Your task to perform on an android device: Look up "custom art" on Etsy Image 0: 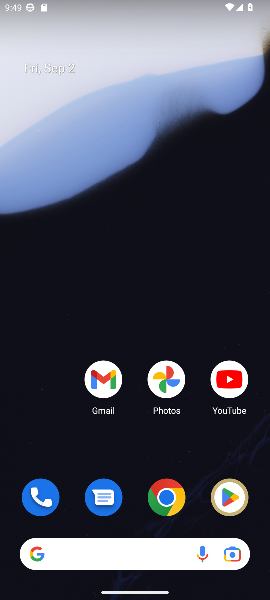
Step 0: drag from (127, 516) to (127, 130)
Your task to perform on an android device: Look up "custom art" on Etsy Image 1: 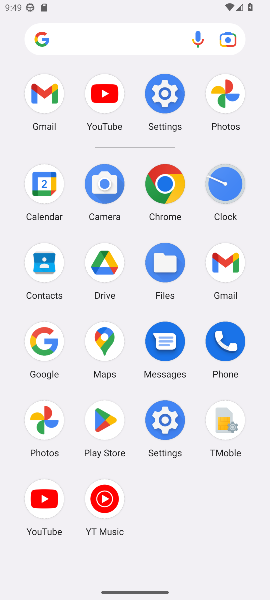
Step 1: click (43, 345)
Your task to perform on an android device: Look up "custom art" on Etsy Image 2: 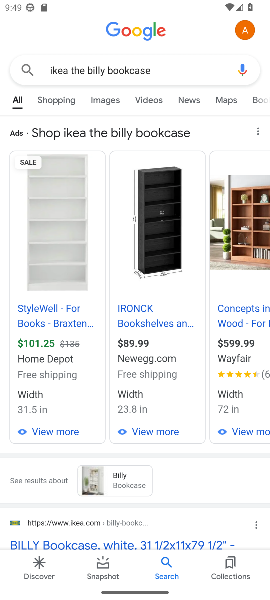
Step 2: click (154, 75)
Your task to perform on an android device: Look up "custom art" on Etsy Image 3: 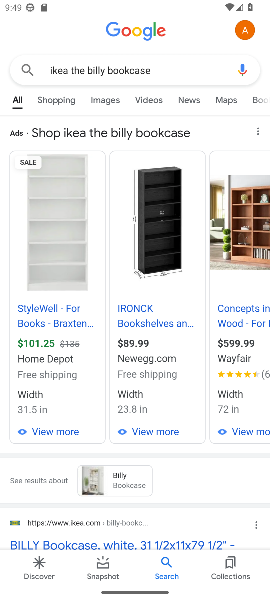
Step 3: click (170, 71)
Your task to perform on an android device: Look up "custom art" on Etsy Image 4: 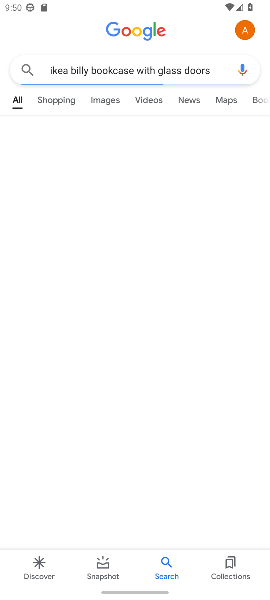
Step 4: click (197, 73)
Your task to perform on an android device: Look up "custom art" on Etsy Image 5: 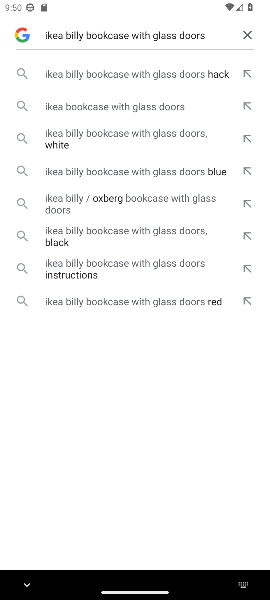
Step 5: click (245, 69)
Your task to perform on an android device: Look up "custom art" on Etsy Image 6: 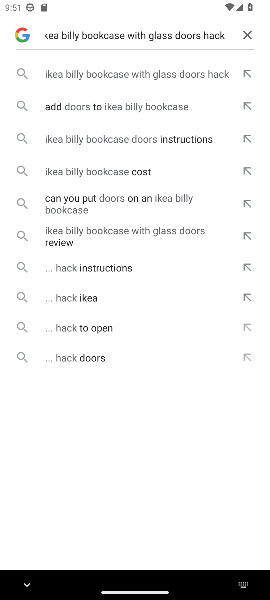
Step 6: click (246, 34)
Your task to perform on an android device: Look up "custom art" on Etsy Image 7: 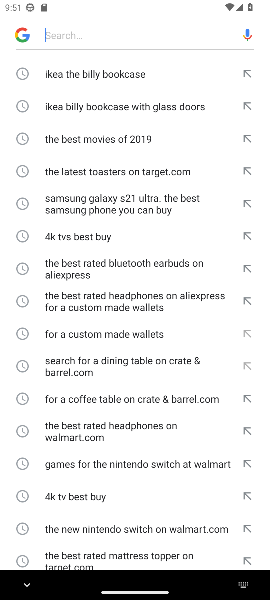
Step 7: type "custom art" on Etsy"
Your task to perform on an android device: Look up "custom art" on Etsy Image 8: 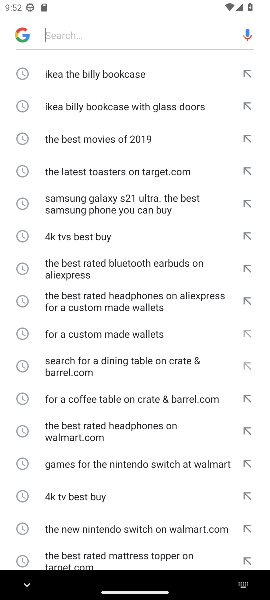
Step 8: click (121, 34)
Your task to perform on an android device: Look up "custom art" on Etsy Image 9: 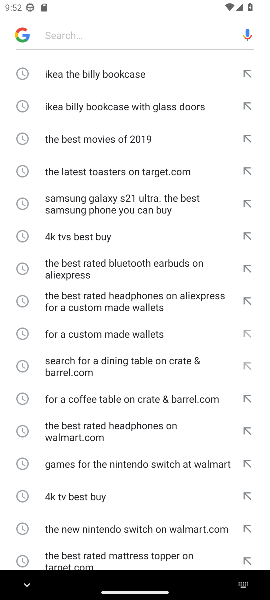
Step 9: type "custom art" on Etsy"
Your task to perform on an android device: Look up "custom art" on Etsy Image 10: 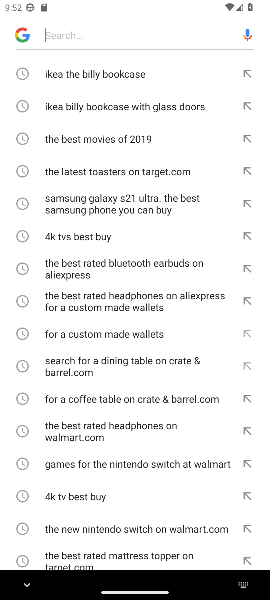
Step 10: type "custom art" on Etsy"
Your task to perform on an android device: Look up "custom art" on Etsy Image 11: 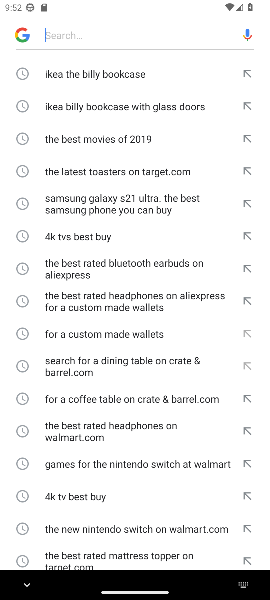
Step 11: task complete